Your task to perform on an android device: Is it going to rain tomorrow? Image 0: 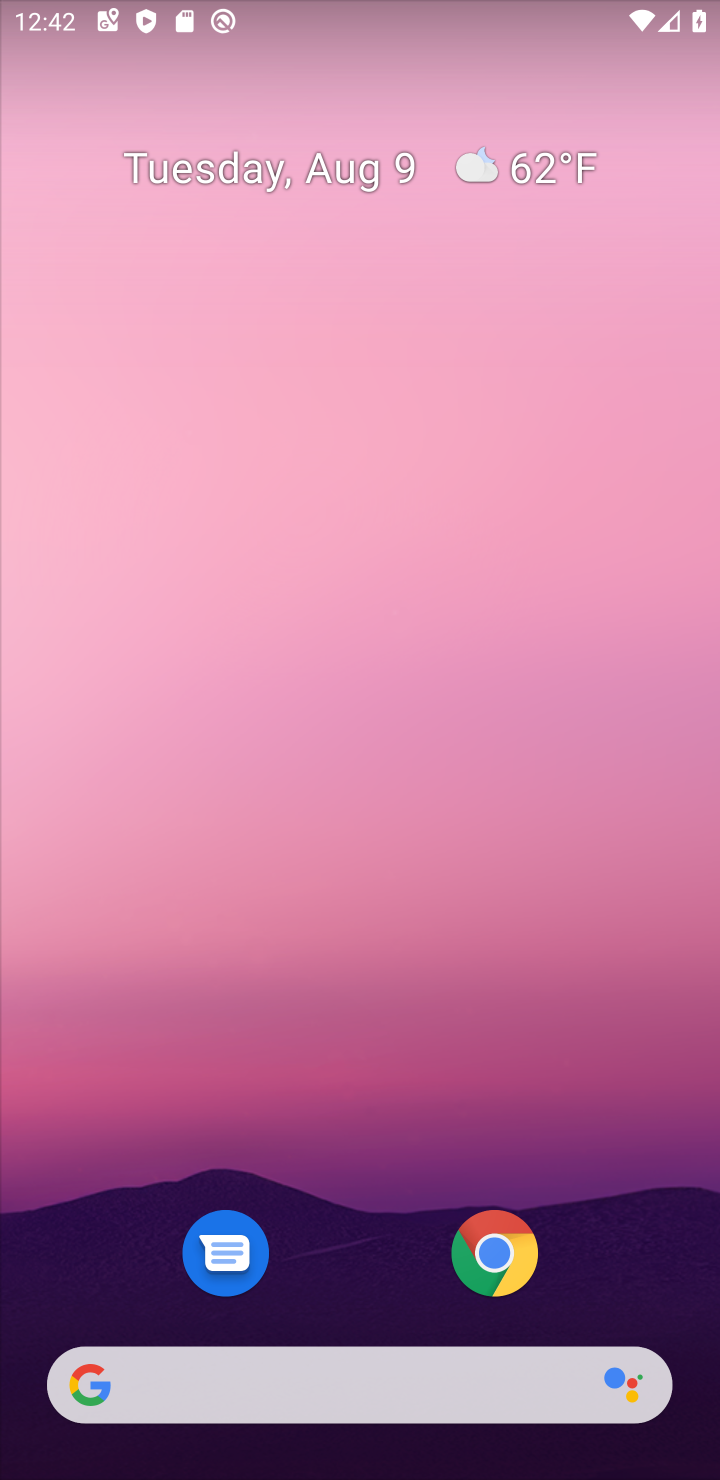
Step 0: drag from (634, 1236) to (280, 117)
Your task to perform on an android device: Is it going to rain tomorrow? Image 1: 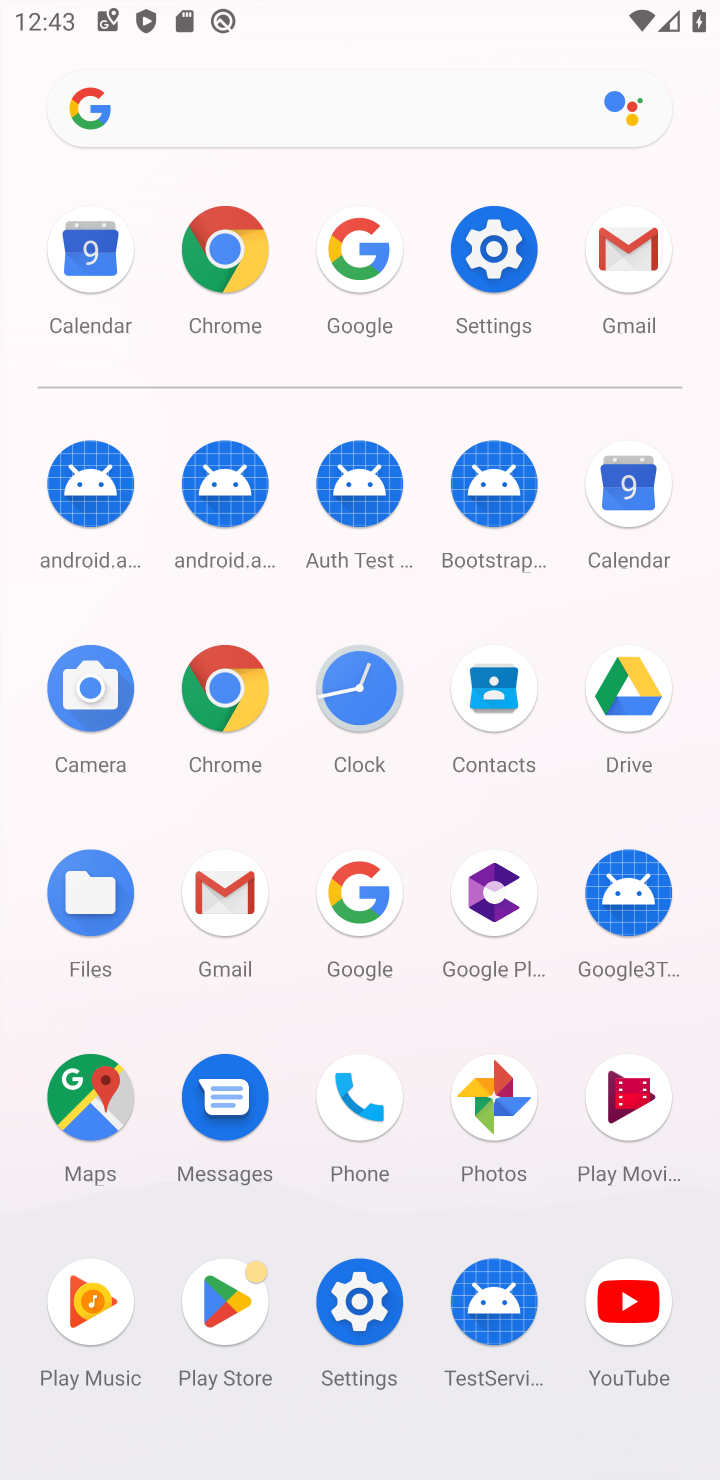
Step 1: click (367, 904)
Your task to perform on an android device: Is it going to rain tomorrow? Image 2: 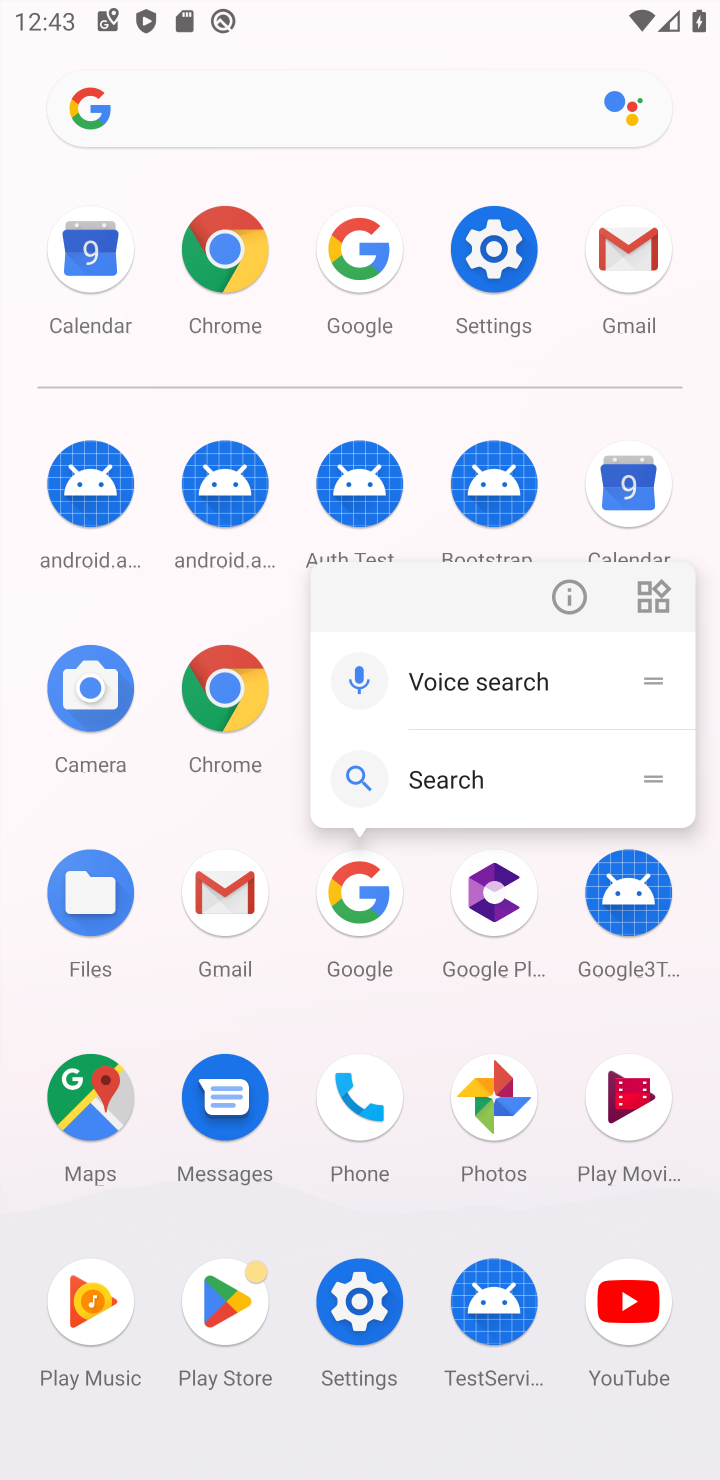
Step 2: click (367, 904)
Your task to perform on an android device: Is it going to rain tomorrow? Image 3: 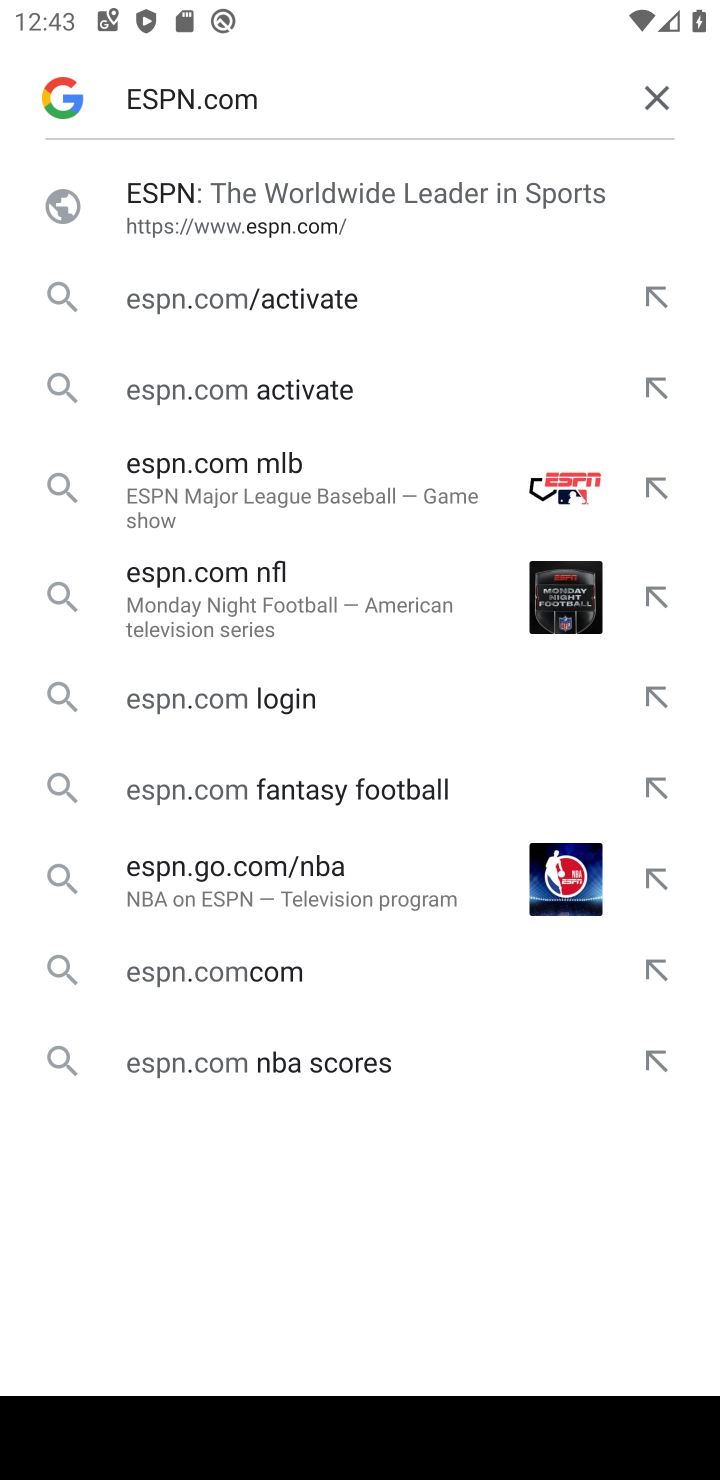
Step 3: click (670, 95)
Your task to perform on an android device: Is it going to rain tomorrow? Image 4: 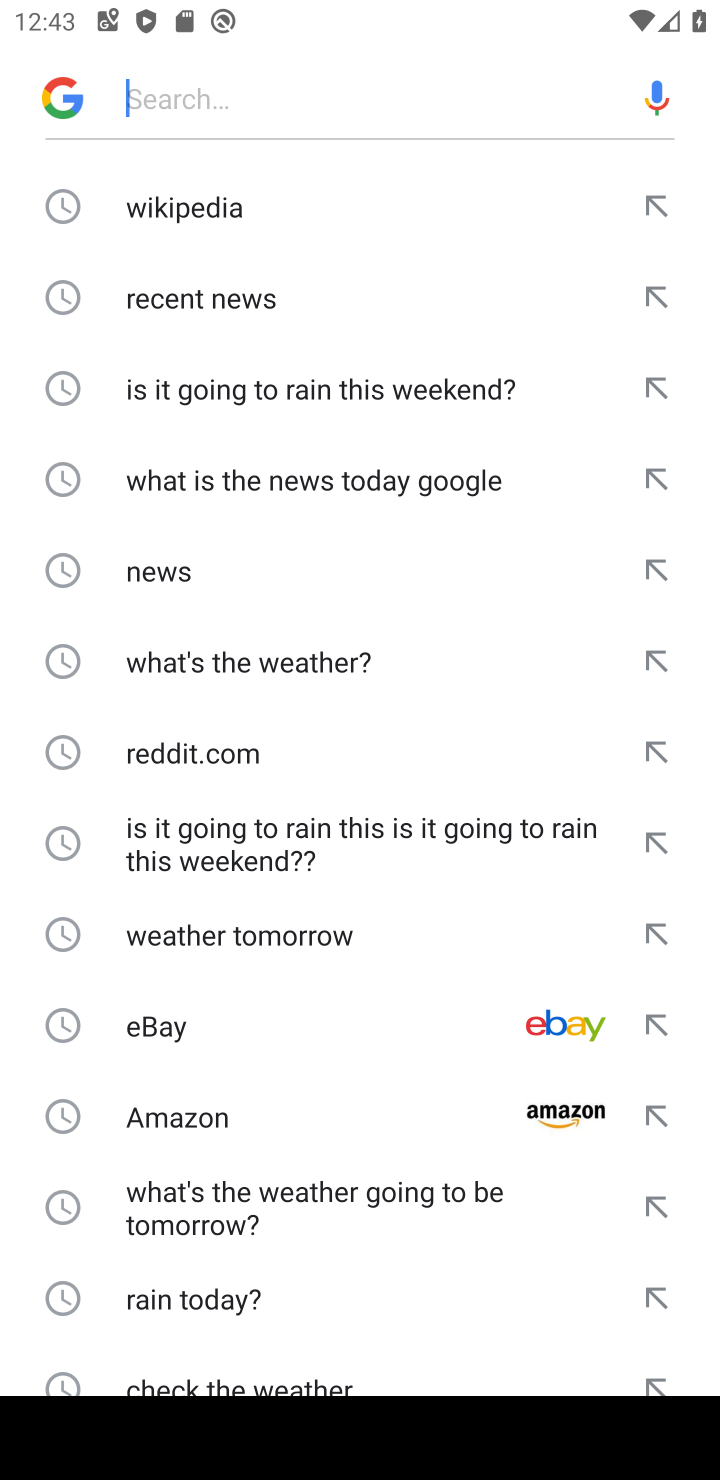
Step 4: drag from (299, 1272) to (389, 556)
Your task to perform on an android device: Is it going to rain tomorrow? Image 5: 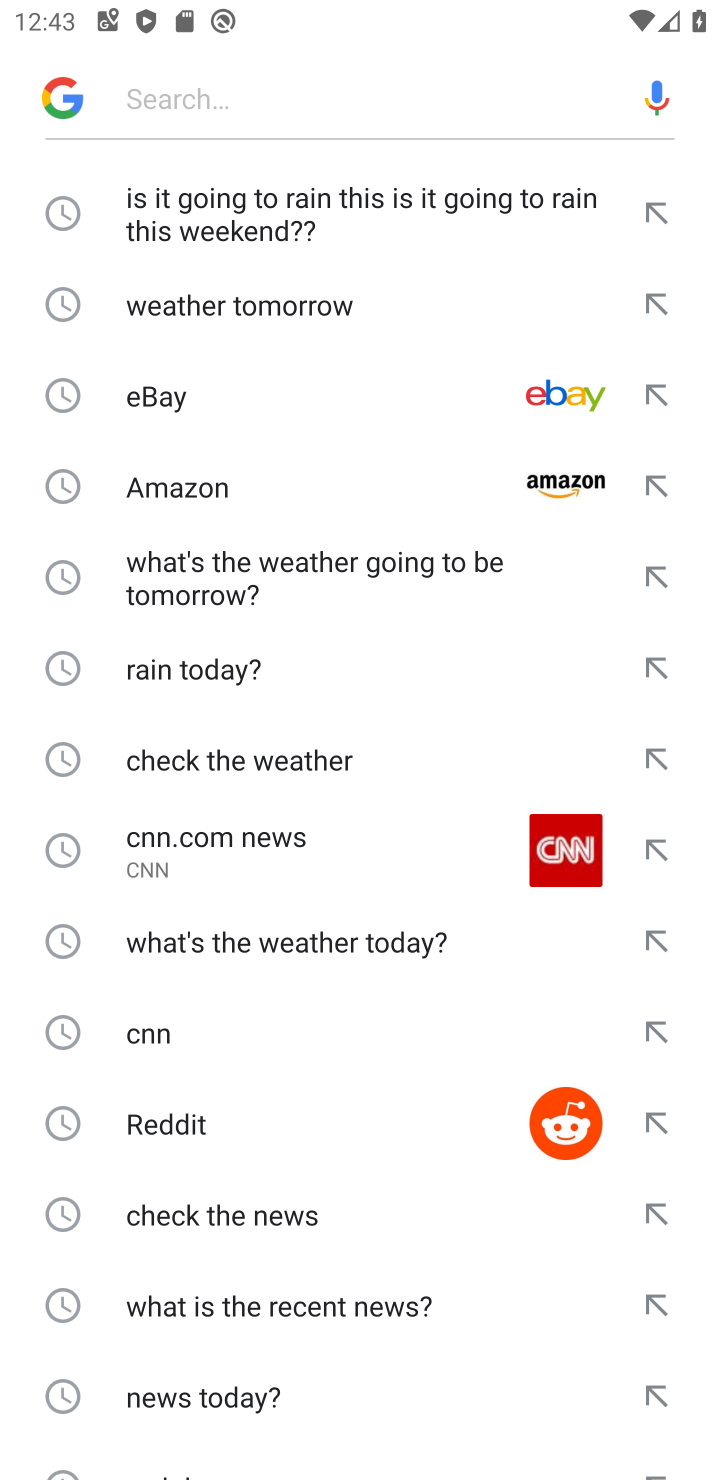
Step 5: type "Is it going to rain tomorrow?"
Your task to perform on an android device: Is it going to rain tomorrow? Image 6: 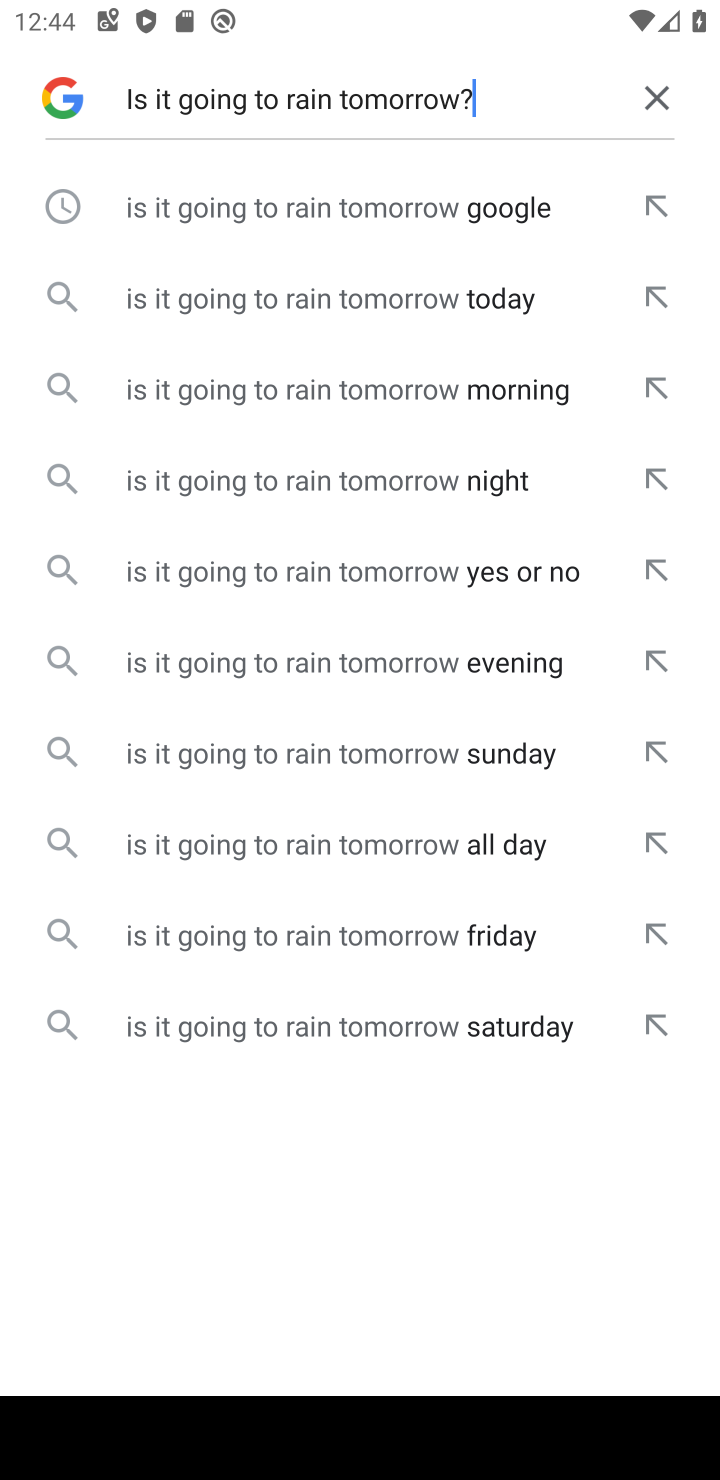
Step 6: click (413, 194)
Your task to perform on an android device: Is it going to rain tomorrow? Image 7: 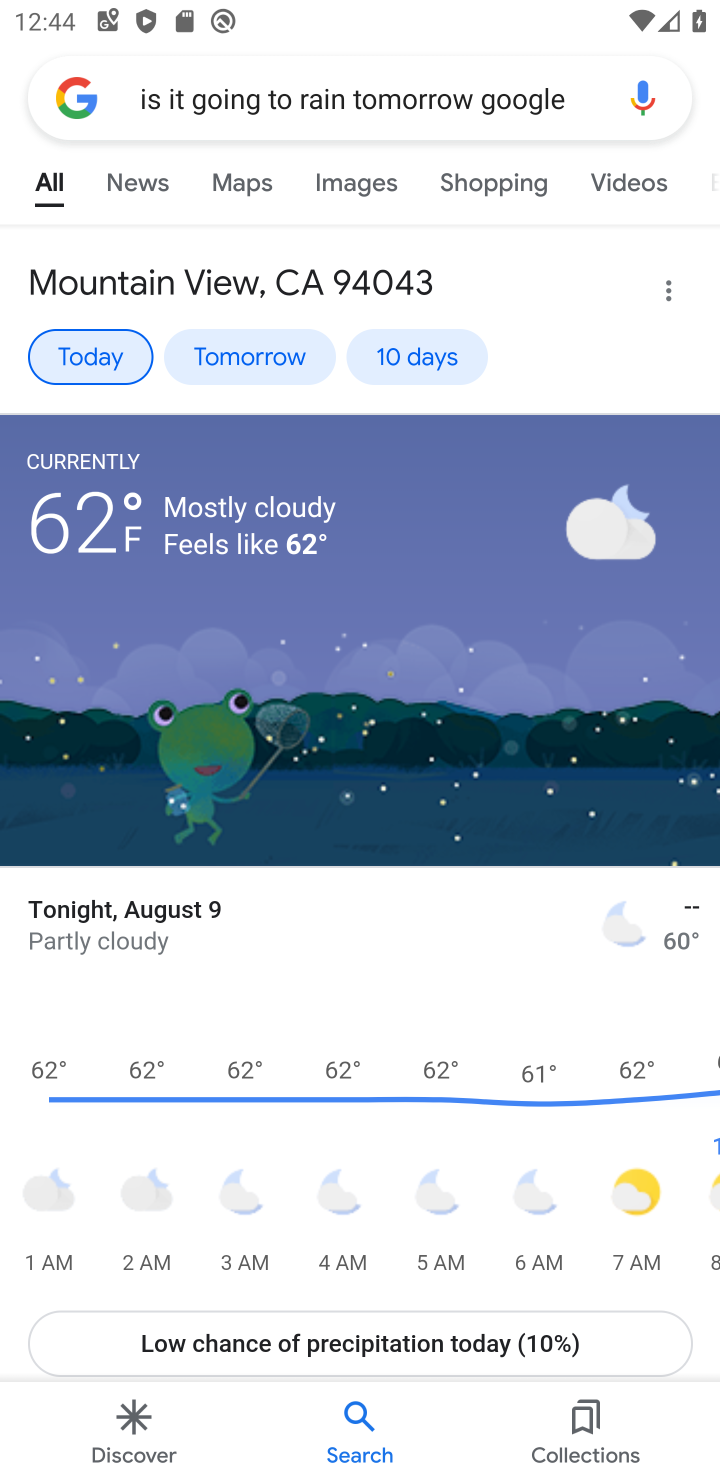
Step 7: task complete